Your task to perform on an android device: Open display settings Image 0: 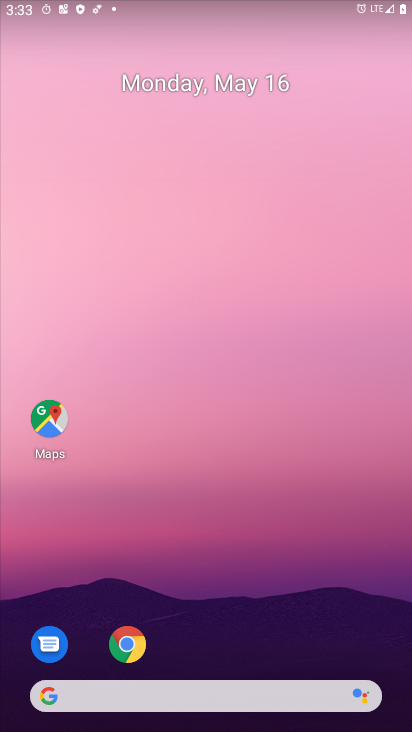
Step 0: drag from (220, 500) to (241, 282)
Your task to perform on an android device: Open display settings Image 1: 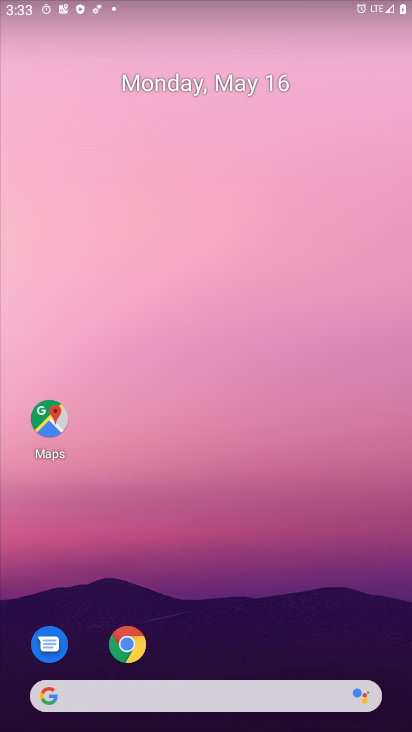
Step 1: drag from (155, 632) to (207, 388)
Your task to perform on an android device: Open display settings Image 2: 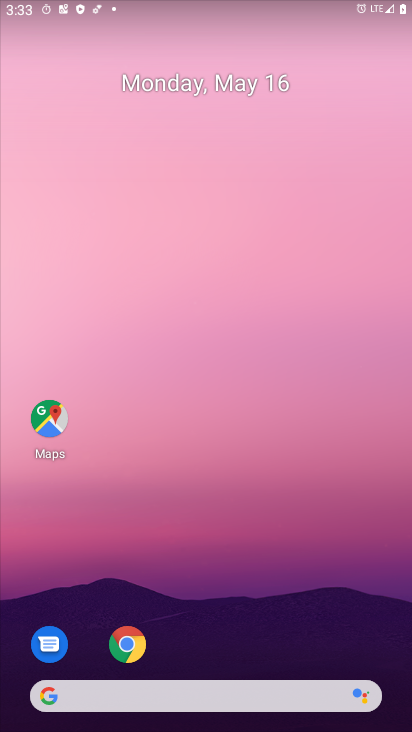
Step 2: drag from (218, 604) to (248, 72)
Your task to perform on an android device: Open display settings Image 3: 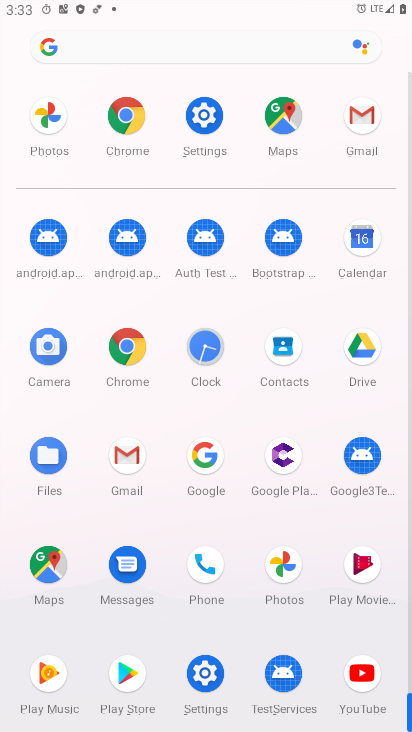
Step 3: click (215, 131)
Your task to perform on an android device: Open display settings Image 4: 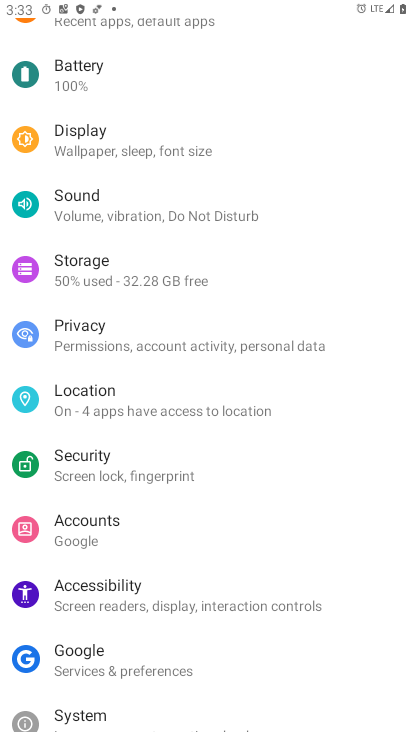
Step 4: drag from (177, 222) to (110, 468)
Your task to perform on an android device: Open display settings Image 5: 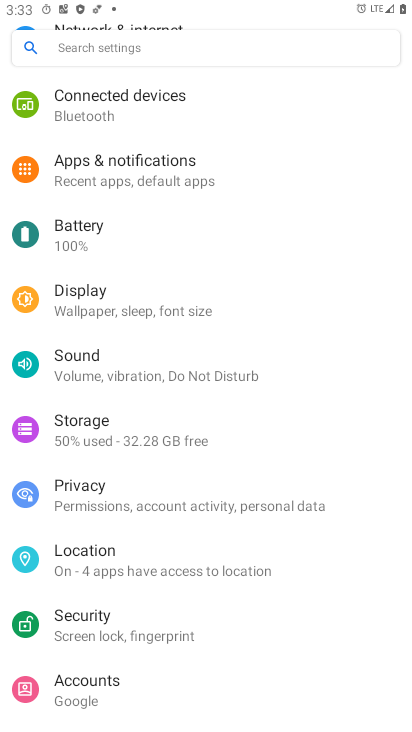
Step 5: click (140, 317)
Your task to perform on an android device: Open display settings Image 6: 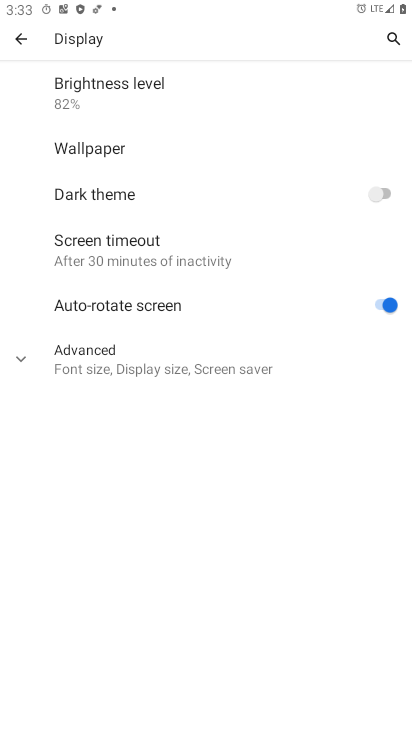
Step 6: click (140, 317)
Your task to perform on an android device: Open display settings Image 7: 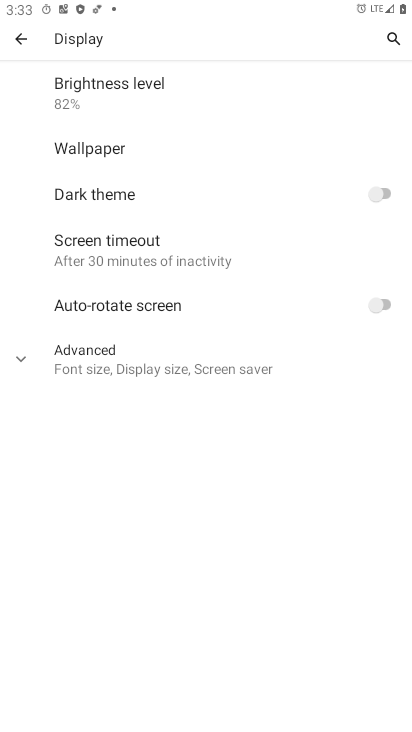
Step 7: task complete